Your task to perform on an android device: install app "ZOOM Cloud Meetings" Image 0: 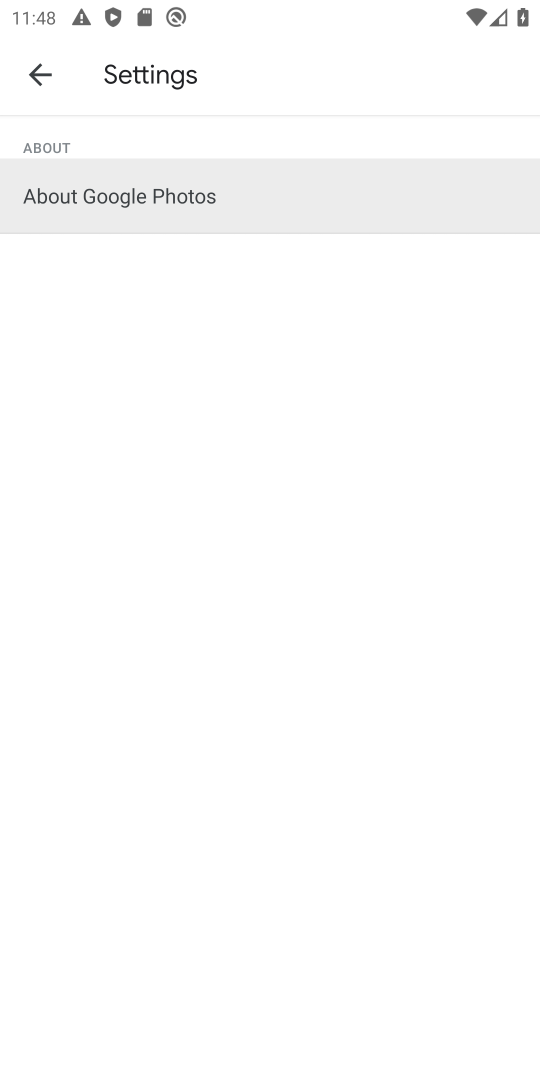
Step 0: click (38, 75)
Your task to perform on an android device: install app "ZOOM Cloud Meetings" Image 1: 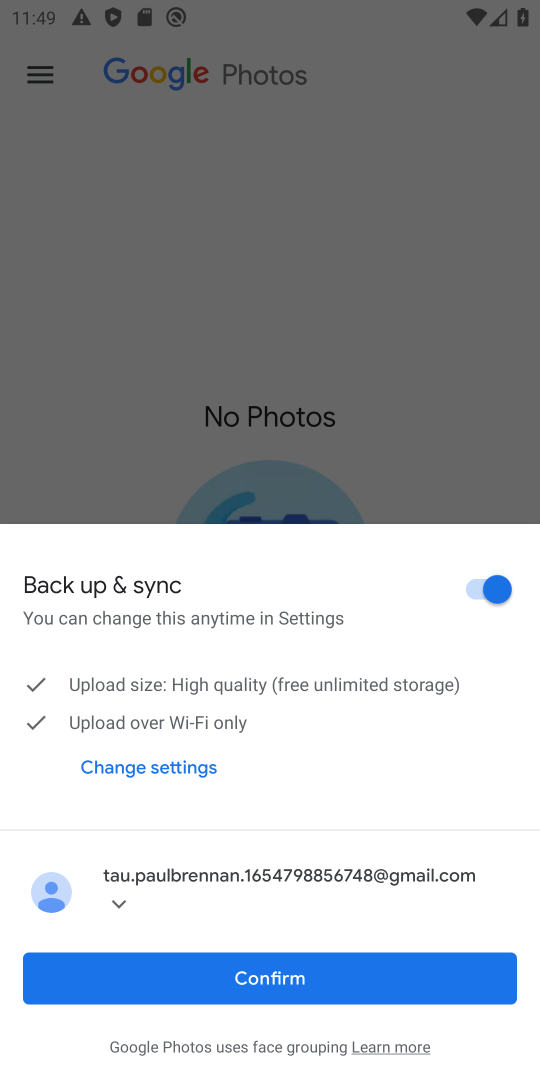
Step 1: press home button
Your task to perform on an android device: install app "ZOOM Cloud Meetings" Image 2: 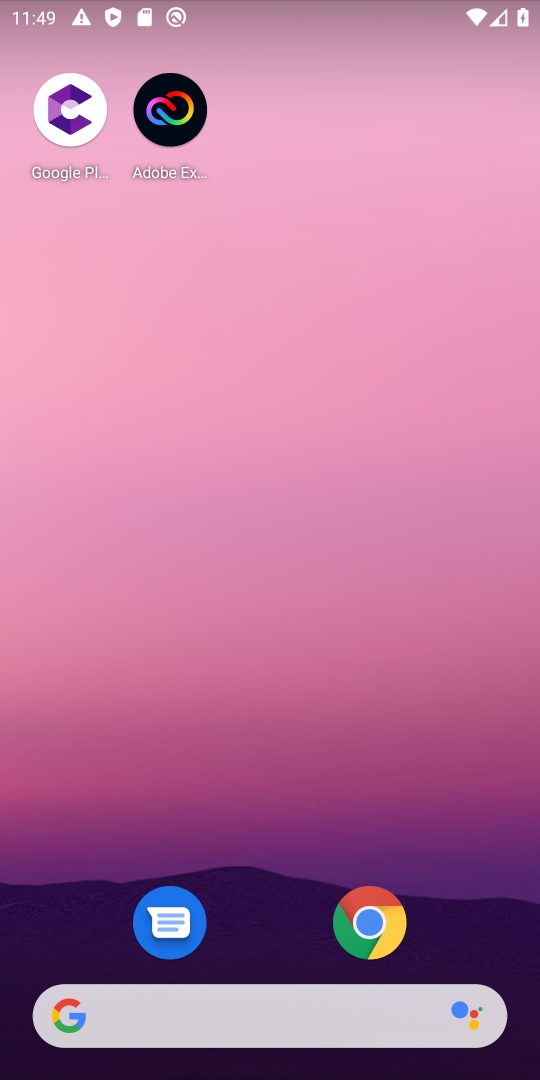
Step 2: drag from (220, 991) to (283, 237)
Your task to perform on an android device: install app "ZOOM Cloud Meetings" Image 3: 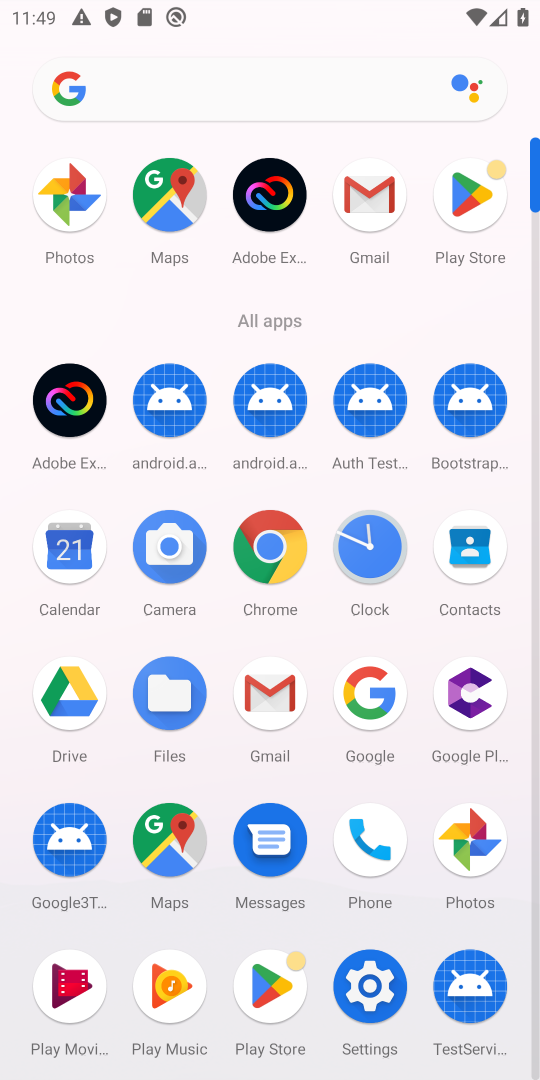
Step 3: click (266, 990)
Your task to perform on an android device: install app "ZOOM Cloud Meetings" Image 4: 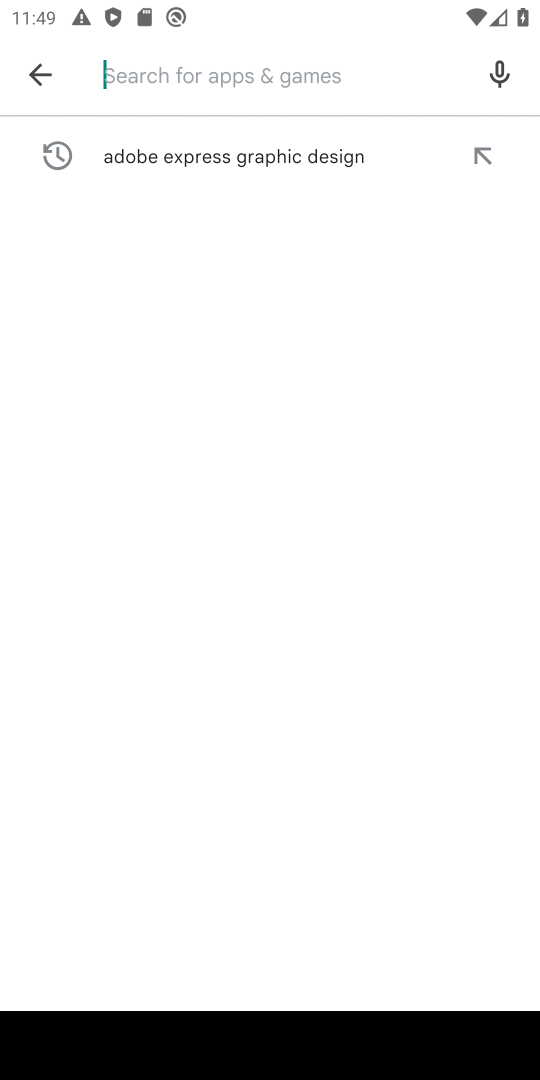
Step 4: type "ZOOM Cloud Meetings"
Your task to perform on an android device: install app "ZOOM Cloud Meetings" Image 5: 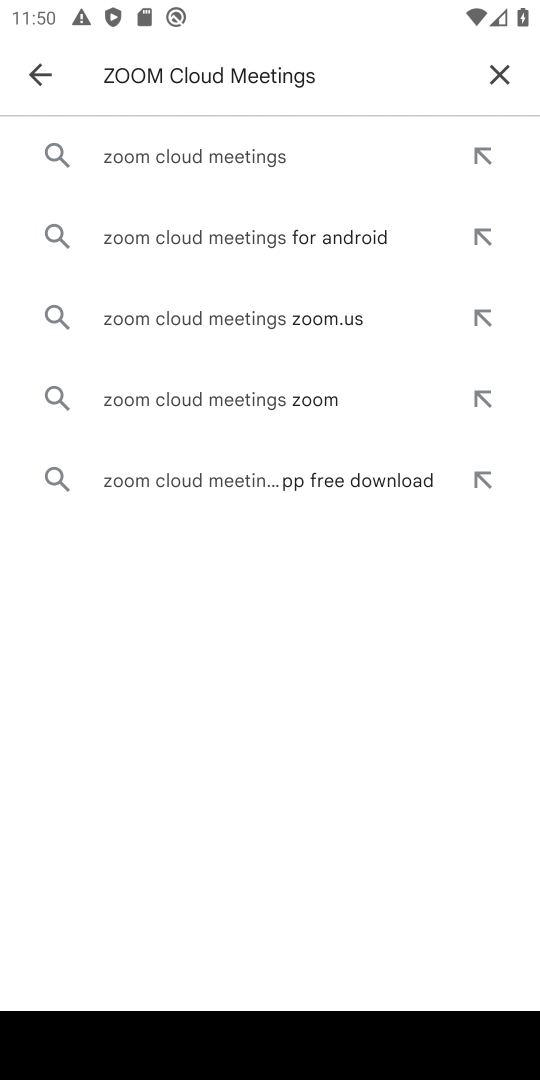
Step 5: click (229, 164)
Your task to perform on an android device: install app "ZOOM Cloud Meetings" Image 6: 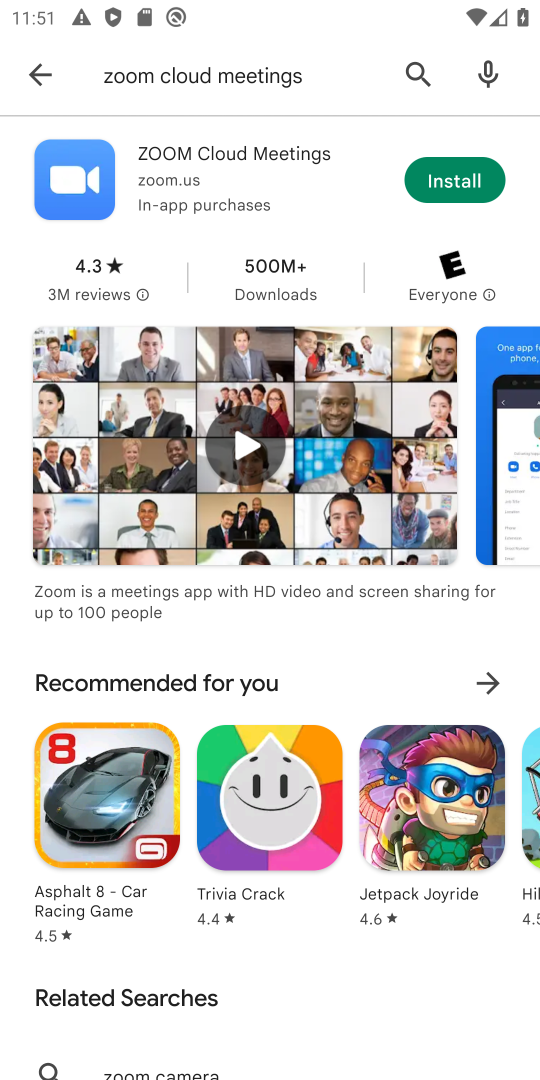
Step 6: click (424, 185)
Your task to perform on an android device: install app "ZOOM Cloud Meetings" Image 7: 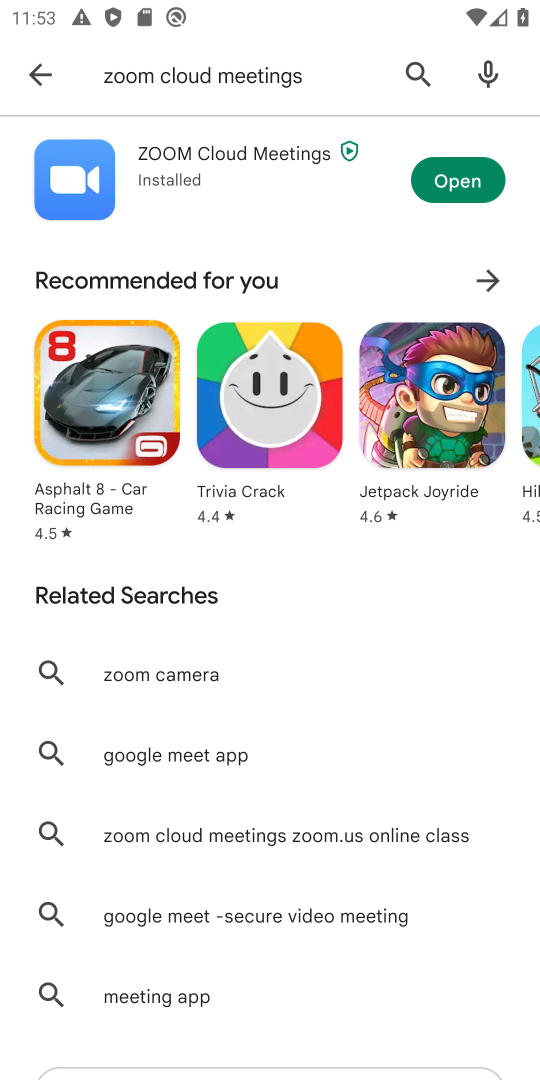
Step 7: click (465, 194)
Your task to perform on an android device: install app "ZOOM Cloud Meetings" Image 8: 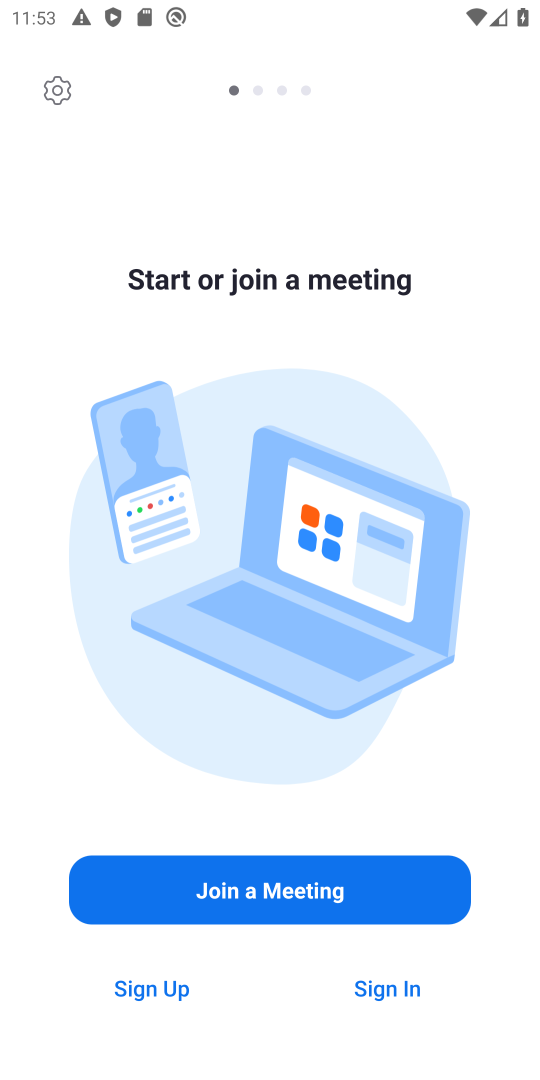
Step 8: task complete